Your task to perform on an android device: change the clock display to digital Image 0: 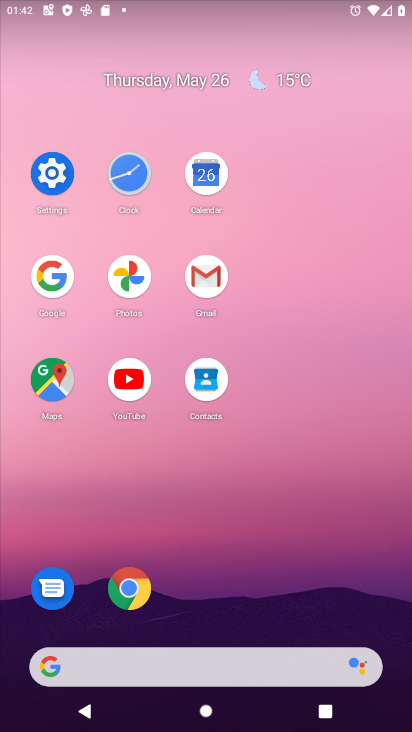
Step 0: click (136, 185)
Your task to perform on an android device: change the clock display to digital Image 1: 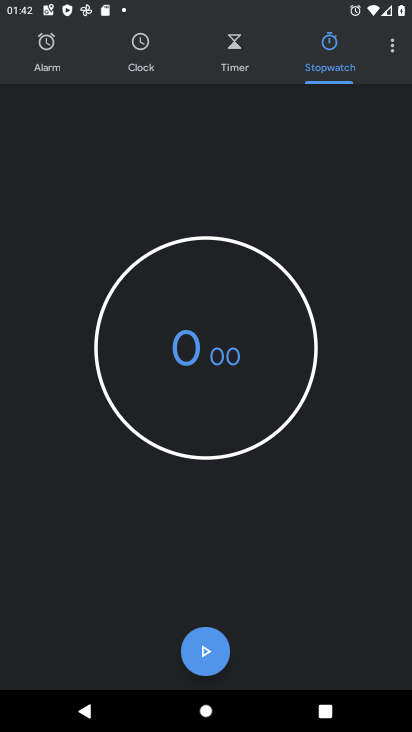
Step 1: click (397, 52)
Your task to perform on an android device: change the clock display to digital Image 2: 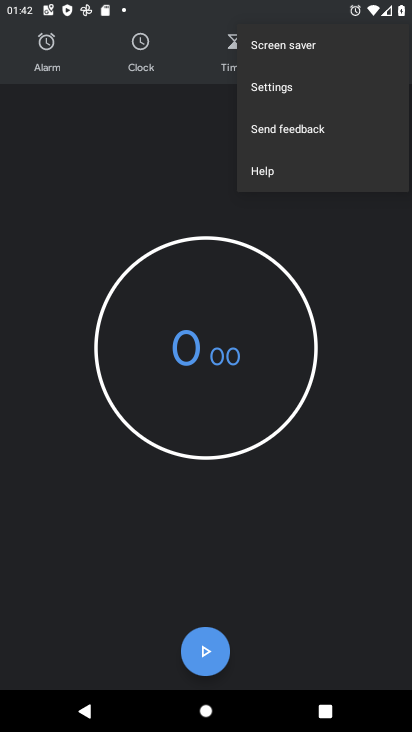
Step 2: click (320, 73)
Your task to perform on an android device: change the clock display to digital Image 3: 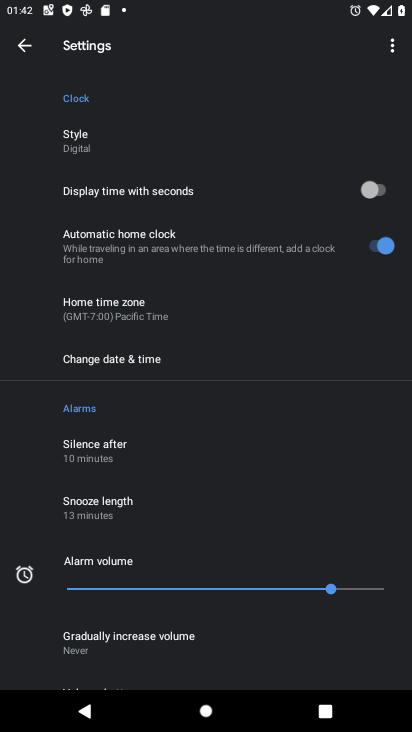
Step 3: task complete